Your task to perform on an android device: Open location settings Image 0: 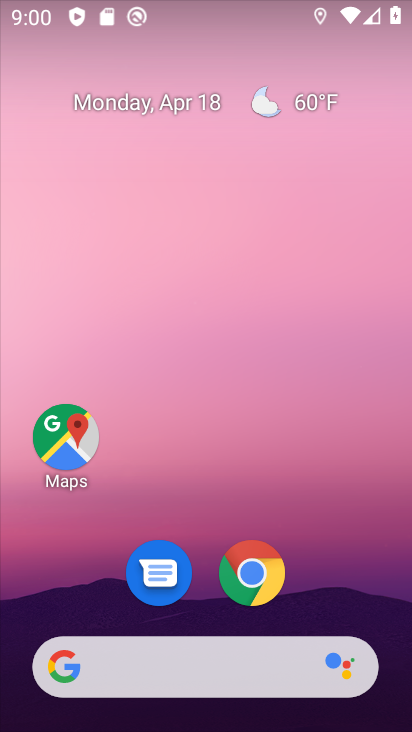
Step 0: press home button
Your task to perform on an android device: Open location settings Image 1: 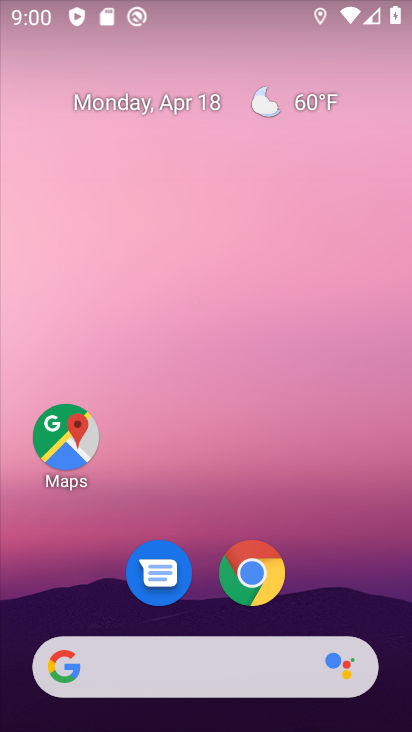
Step 1: drag from (323, 595) to (310, 42)
Your task to perform on an android device: Open location settings Image 2: 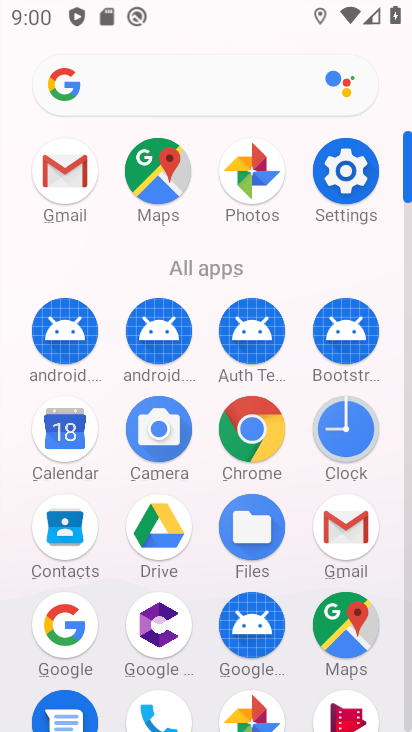
Step 2: click (348, 166)
Your task to perform on an android device: Open location settings Image 3: 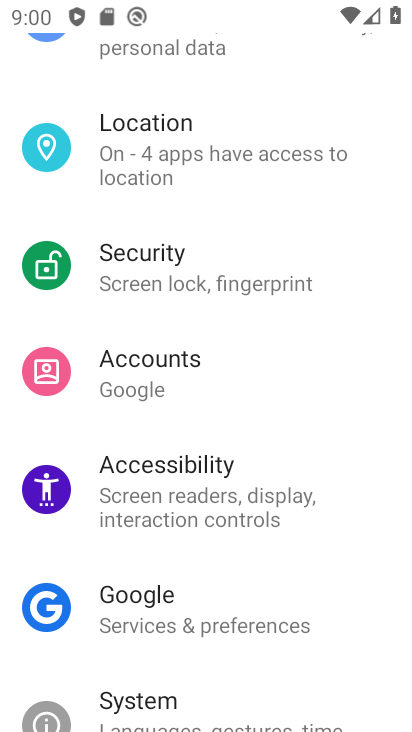
Step 3: click (156, 163)
Your task to perform on an android device: Open location settings Image 4: 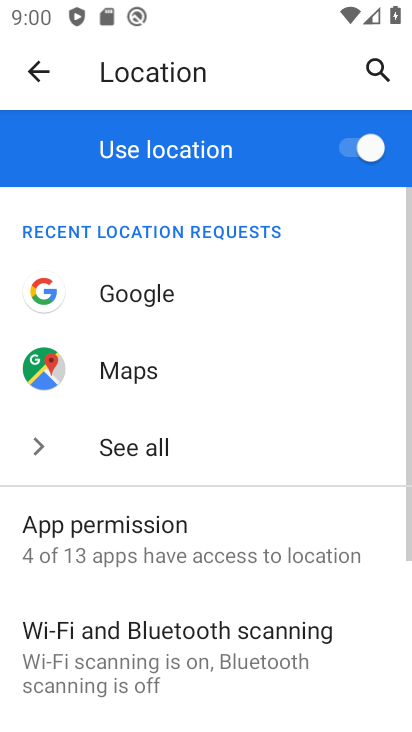
Step 4: drag from (133, 636) to (150, 268)
Your task to perform on an android device: Open location settings Image 5: 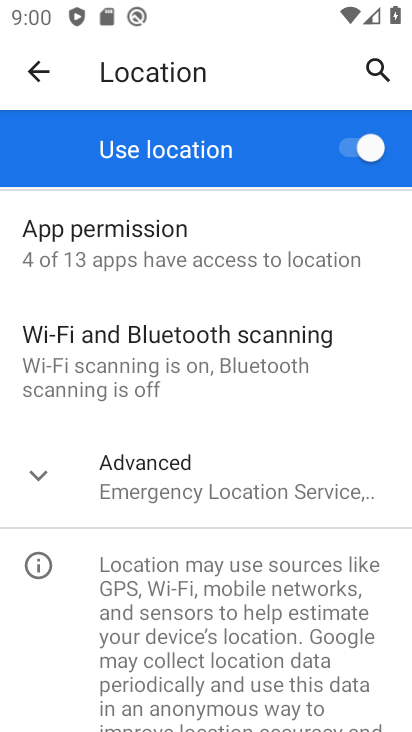
Step 5: click (121, 456)
Your task to perform on an android device: Open location settings Image 6: 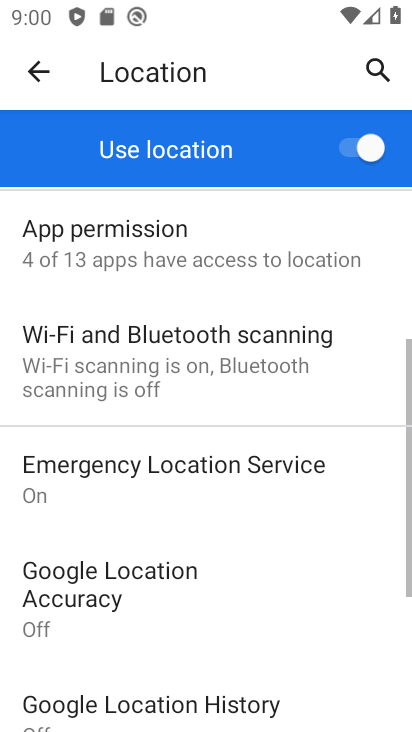
Step 6: task complete